Your task to perform on an android device: toggle javascript in the chrome app Image 0: 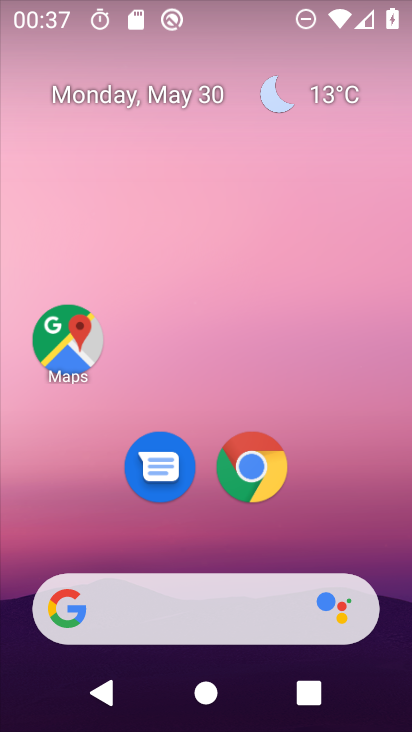
Step 0: click (264, 475)
Your task to perform on an android device: toggle javascript in the chrome app Image 1: 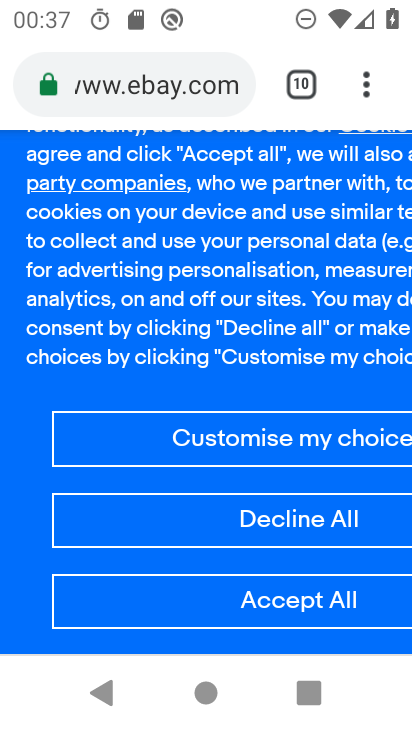
Step 1: click (372, 75)
Your task to perform on an android device: toggle javascript in the chrome app Image 2: 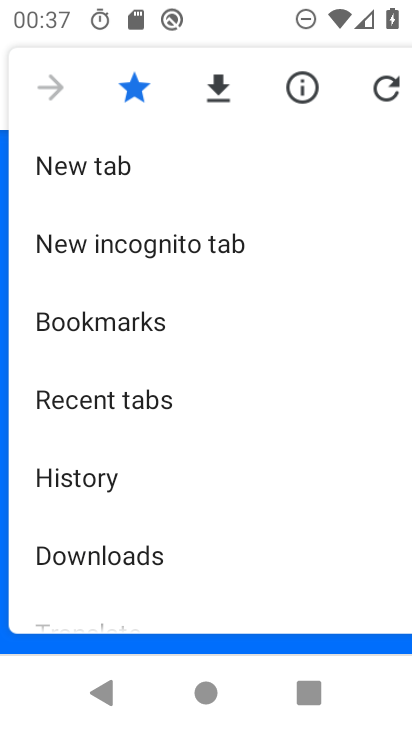
Step 2: drag from (183, 521) to (206, 283)
Your task to perform on an android device: toggle javascript in the chrome app Image 3: 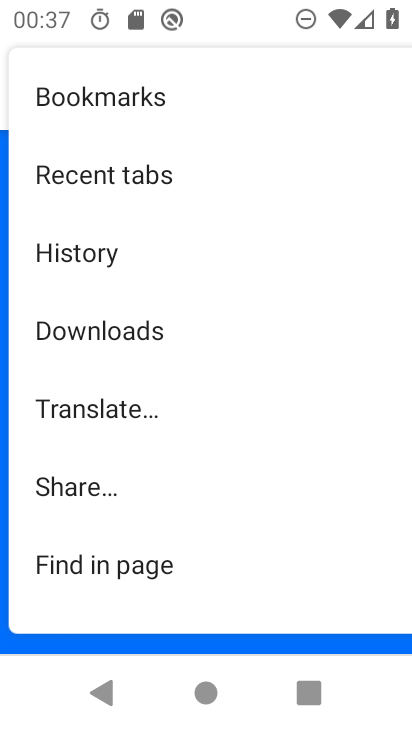
Step 3: drag from (177, 549) to (187, 321)
Your task to perform on an android device: toggle javascript in the chrome app Image 4: 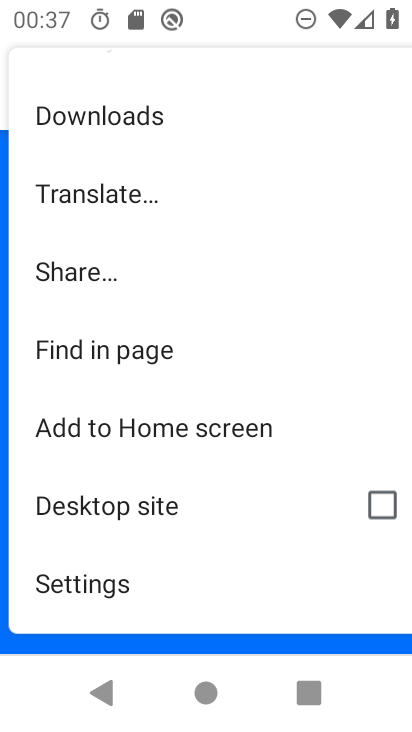
Step 4: click (156, 606)
Your task to perform on an android device: toggle javascript in the chrome app Image 5: 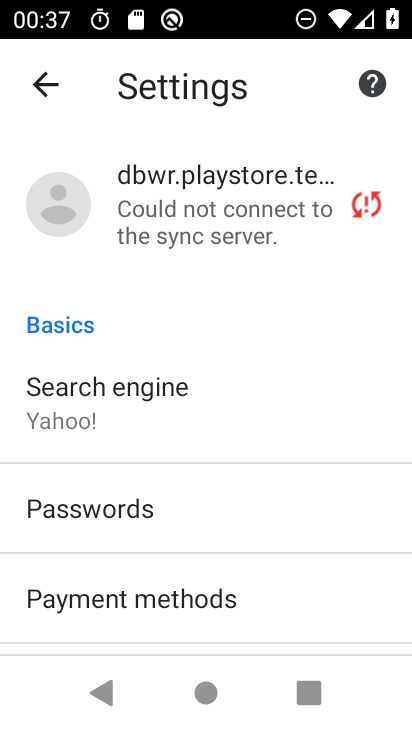
Step 5: drag from (165, 560) to (214, 276)
Your task to perform on an android device: toggle javascript in the chrome app Image 6: 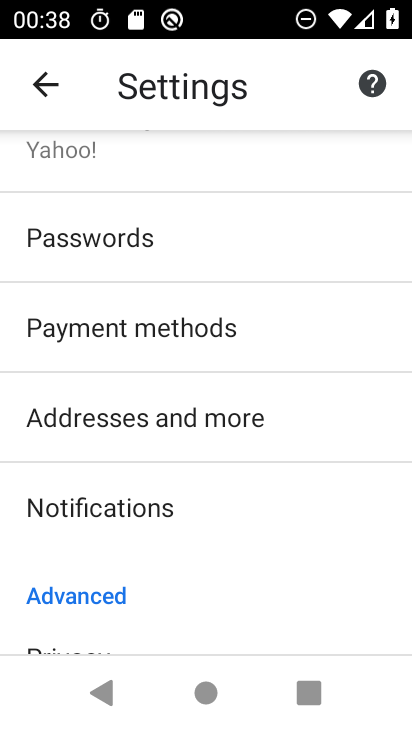
Step 6: drag from (119, 593) to (168, 323)
Your task to perform on an android device: toggle javascript in the chrome app Image 7: 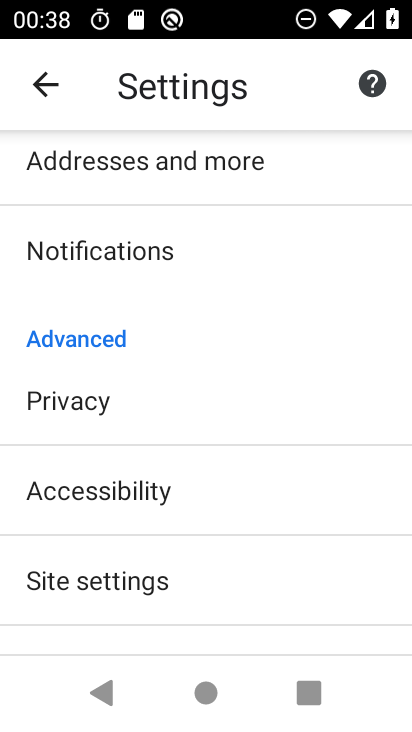
Step 7: drag from (155, 540) to (156, 307)
Your task to perform on an android device: toggle javascript in the chrome app Image 8: 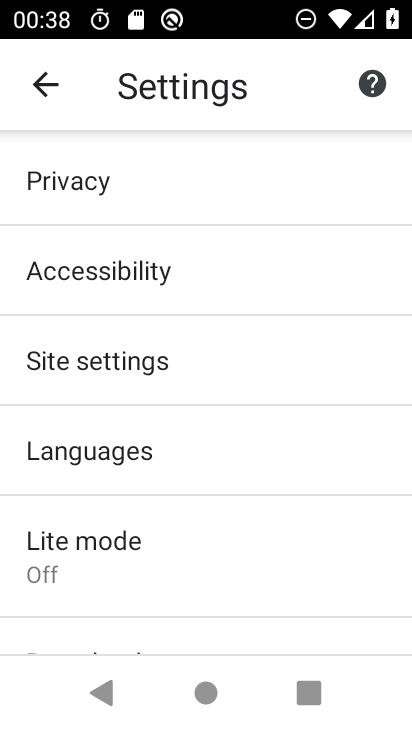
Step 8: click (152, 369)
Your task to perform on an android device: toggle javascript in the chrome app Image 9: 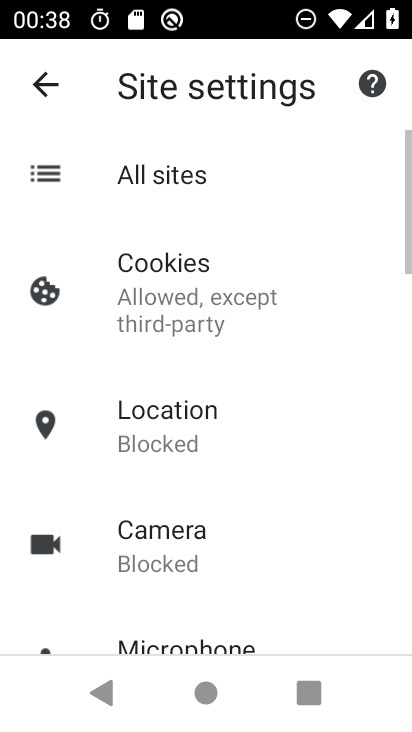
Step 9: drag from (123, 601) to (153, 397)
Your task to perform on an android device: toggle javascript in the chrome app Image 10: 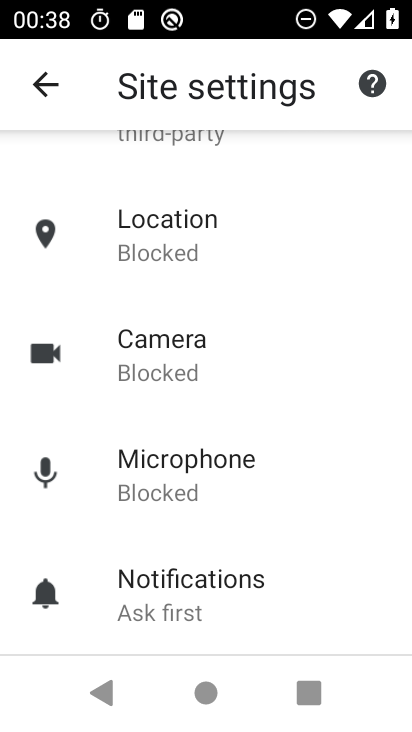
Step 10: drag from (203, 533) to (237, 241)
Your task to perform on an android device: toggle javascript in the chrome app Image 11: 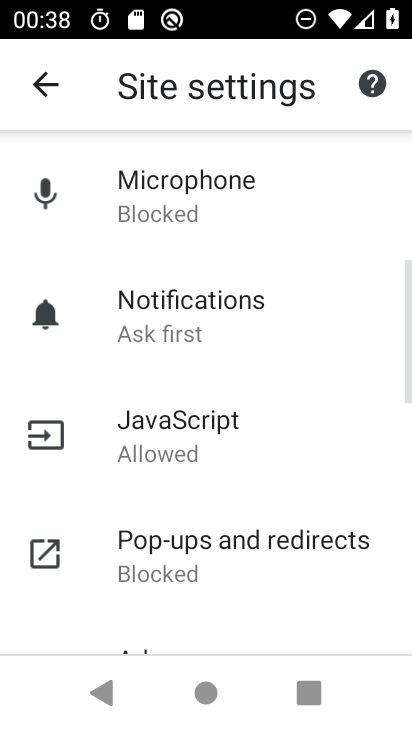
Step 11: click (216, 423)
Your task to perform on an android device: toggle javascript in the chrome app Image 12: 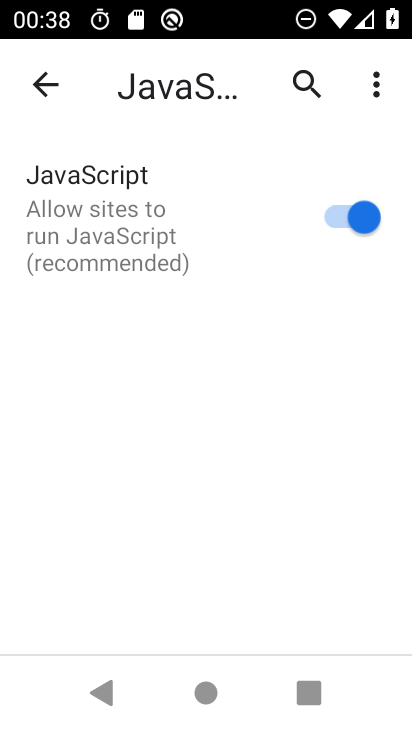
Step 12: click (327, 218)
Your task to perform on an android device: toggle javascript in the chrome app Image 13: 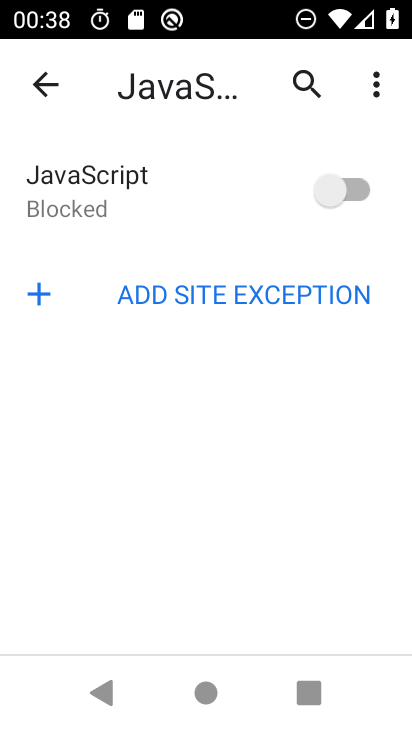
Step 13: task complete